Your task to perform on an android device: open chrome privacy settings Image 0: 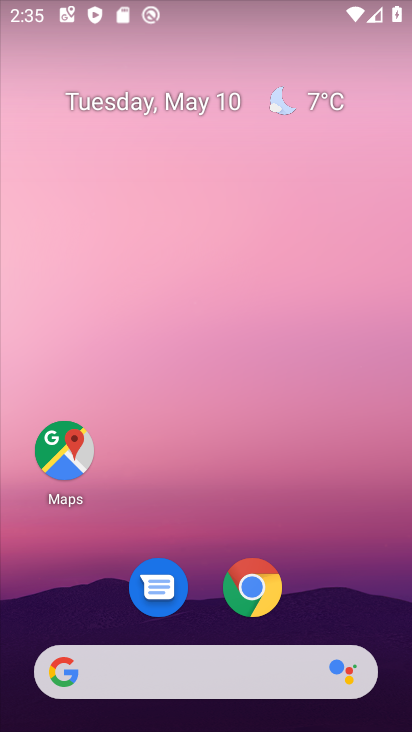
Step 0: click (260, 603)
Your task to perform on an android device: open chrome privacy settings Image 1: 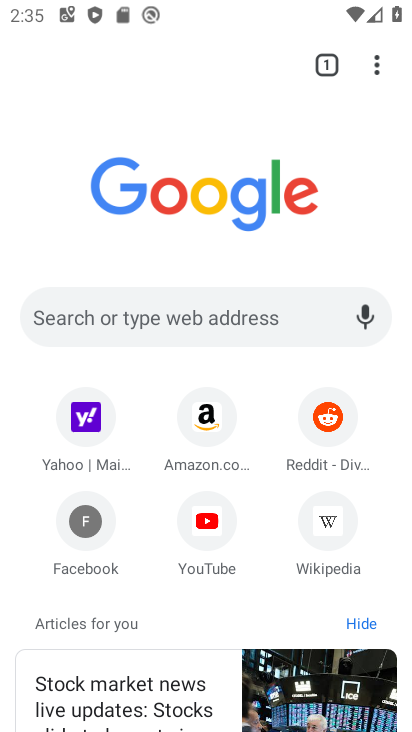
Step 1: click (378, 68)
Your task to perform on an android device: open chrome privacy settings Image 2: 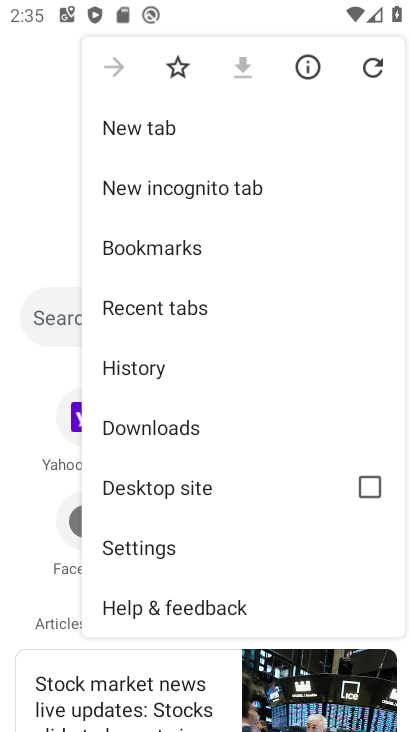
Step 2: click (168, 546)
Your task to perform on an android device: open chrome privacy settings Image 3: 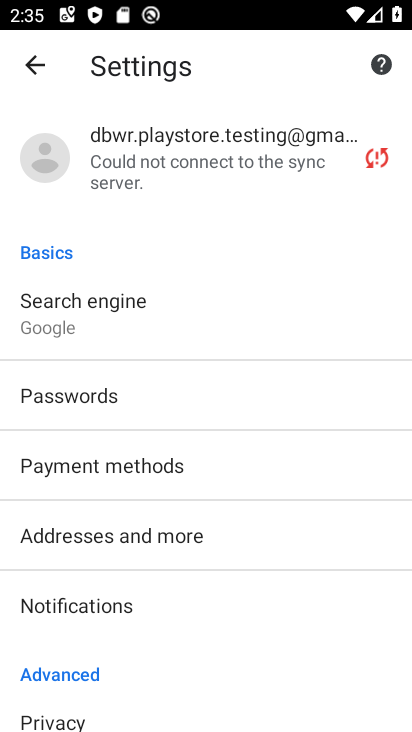
Step 3: click (119, 713)
Your task to perform on an android device: open chrome privacy settings Image 4: 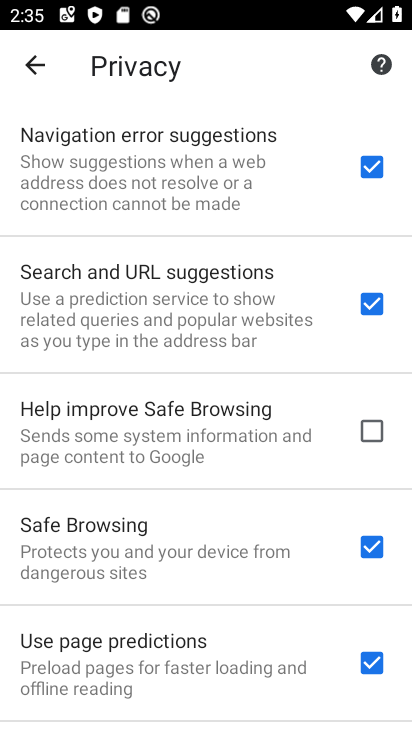
Step 4: task complete